Your task to perform on an android device: toggle javascript in the chrome app Image 0: 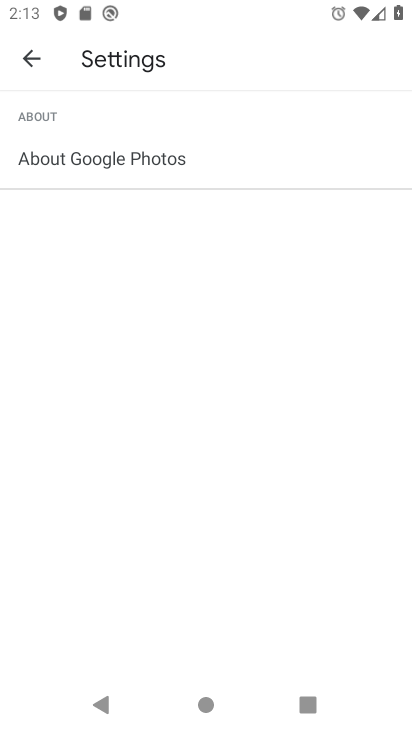
Step 0: press home button
Your task to perform on an android device: toggle javascript in the chrome app Image 1: 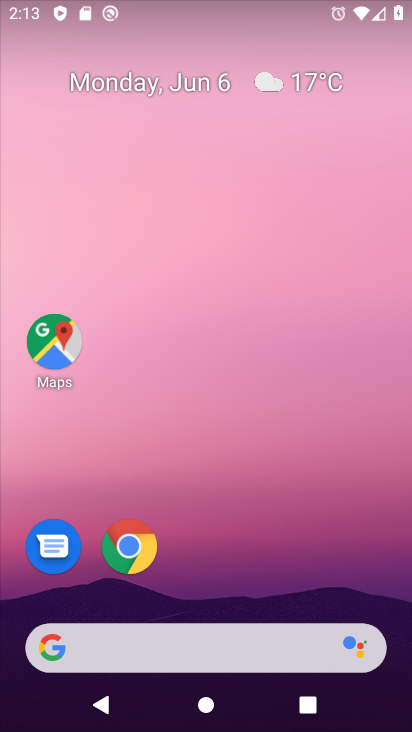
Step 1: click (116, 546)
Your task to perform on an android device: toggle javascript in the chrome app Image 2: 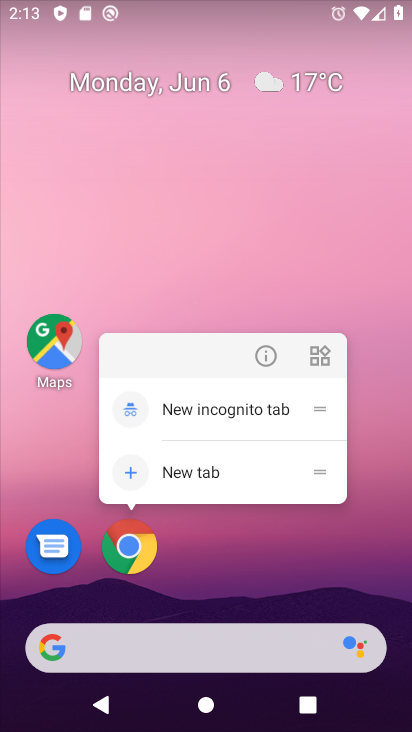
Step 2: click (132, 526)
Your task to perform on an android device: toggle javascript in the chrome app Image 3: 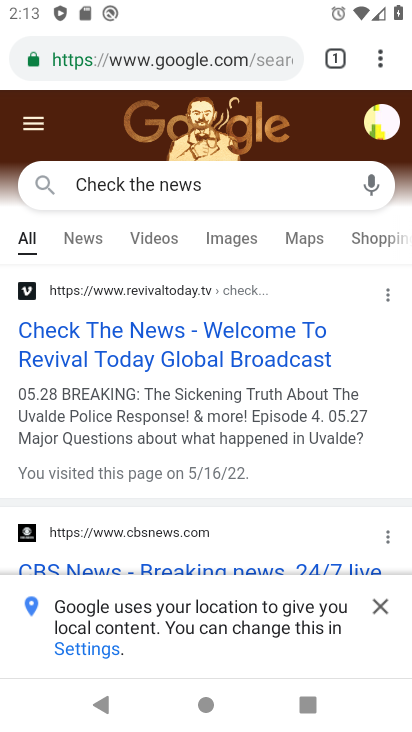
Step 3: click (397, 60)
Your task to perform on an android device: toggle javascript in the chrome app Image 4: 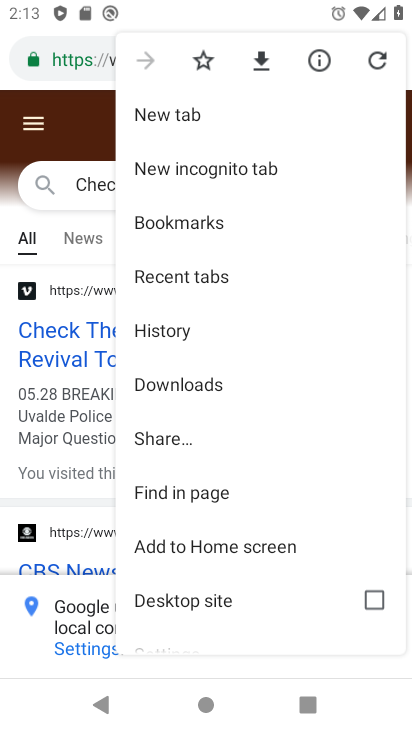
Step 4: drag from (192, 572) to (211, 291)
Your task to perform on an android device: toggle javascript in the chrome app Image 5: 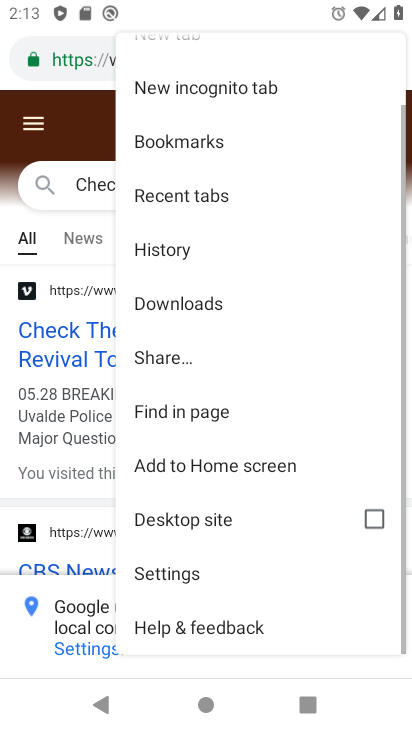
Step 5: click (190, 562)
Your task to perform on an android device: toggle javascript in the chrome app Image 6: 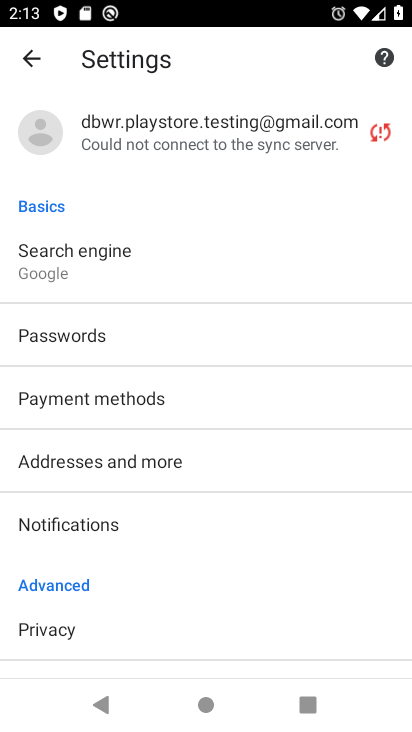
Step 6: drag from (182, 602) to (198, 221)
Your task to perform on an android device: toggle javascript in the chrome app Image 7: 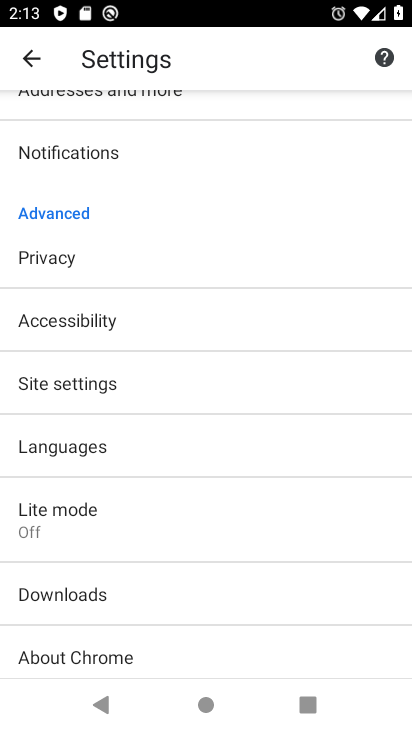
Step 7: click (106, 370)
Your task to perform on an android device: toggle javascript in the chrome app Image 8: 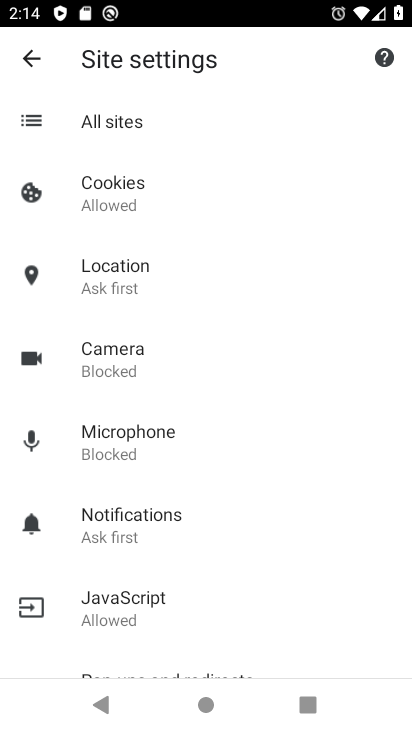
Step 8: click (165, 611)
Your task to perform on an android device: toggle javascript in the chrome app Image 9: 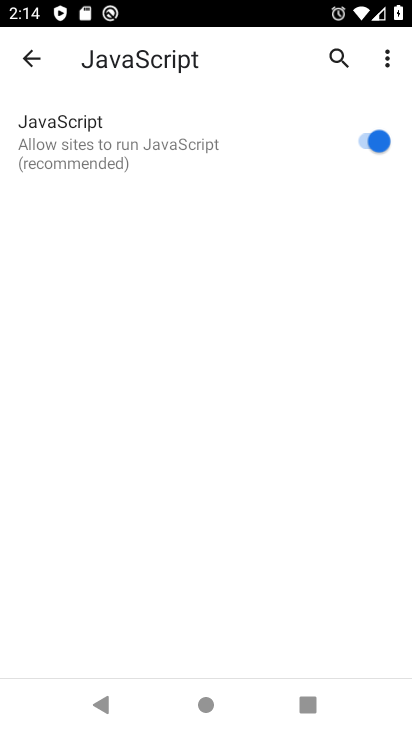
Step 9: click (368, 134)
Your task to perform on an android device: toggle javascript in the chrome app Image 10: 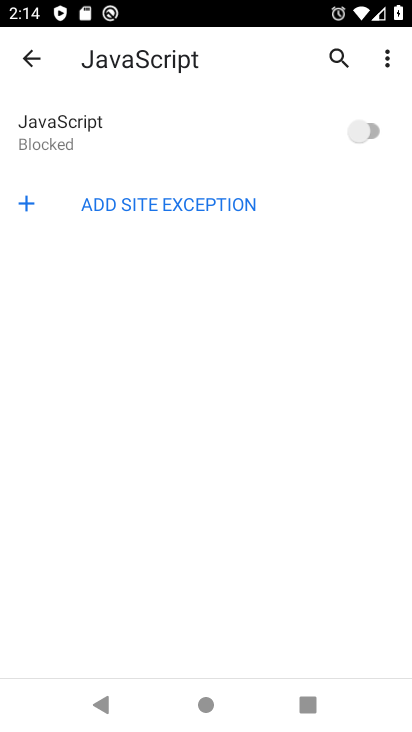
Step 10: task complete